Your task to perform on an android device: open app "eBay: The shopping marketplace" (install if not already installed) Image 0: 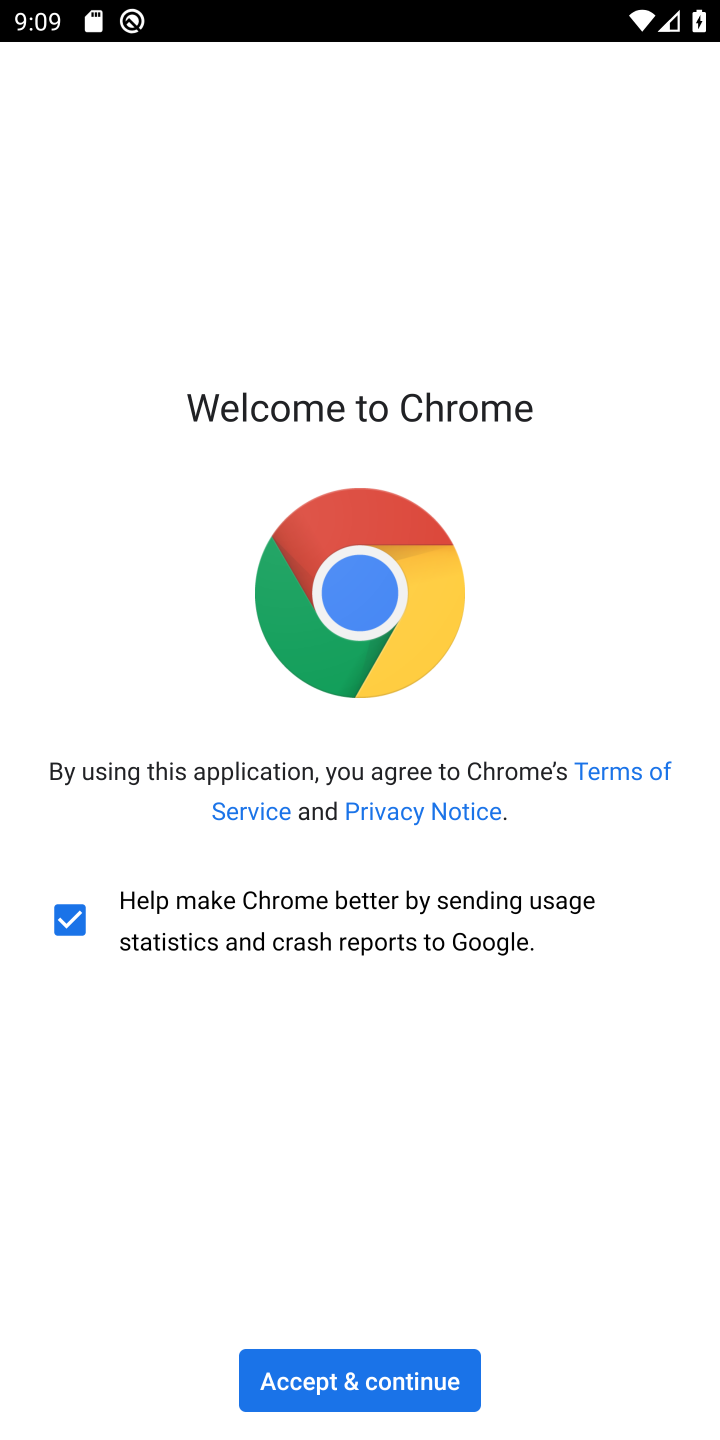
Step 0: press home button
Your task to perform on an android device: open app "eBay: The shopping marketplace" (install if not already installed) Image 1: 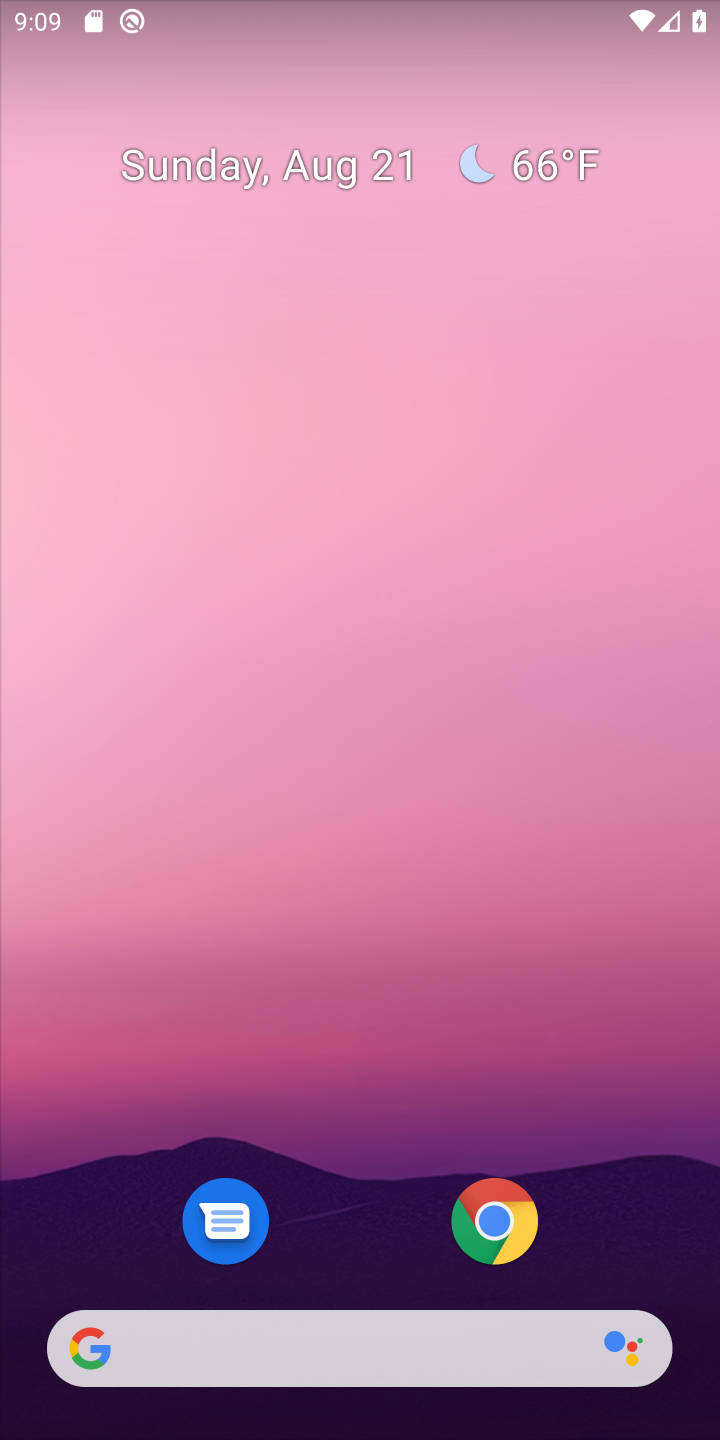
Step 1: drag from (330, 1119) to (262, 216)
Your task to perform on an android device: open app "eBay: The shopping marketplace" (install if not already installed) Image 2: 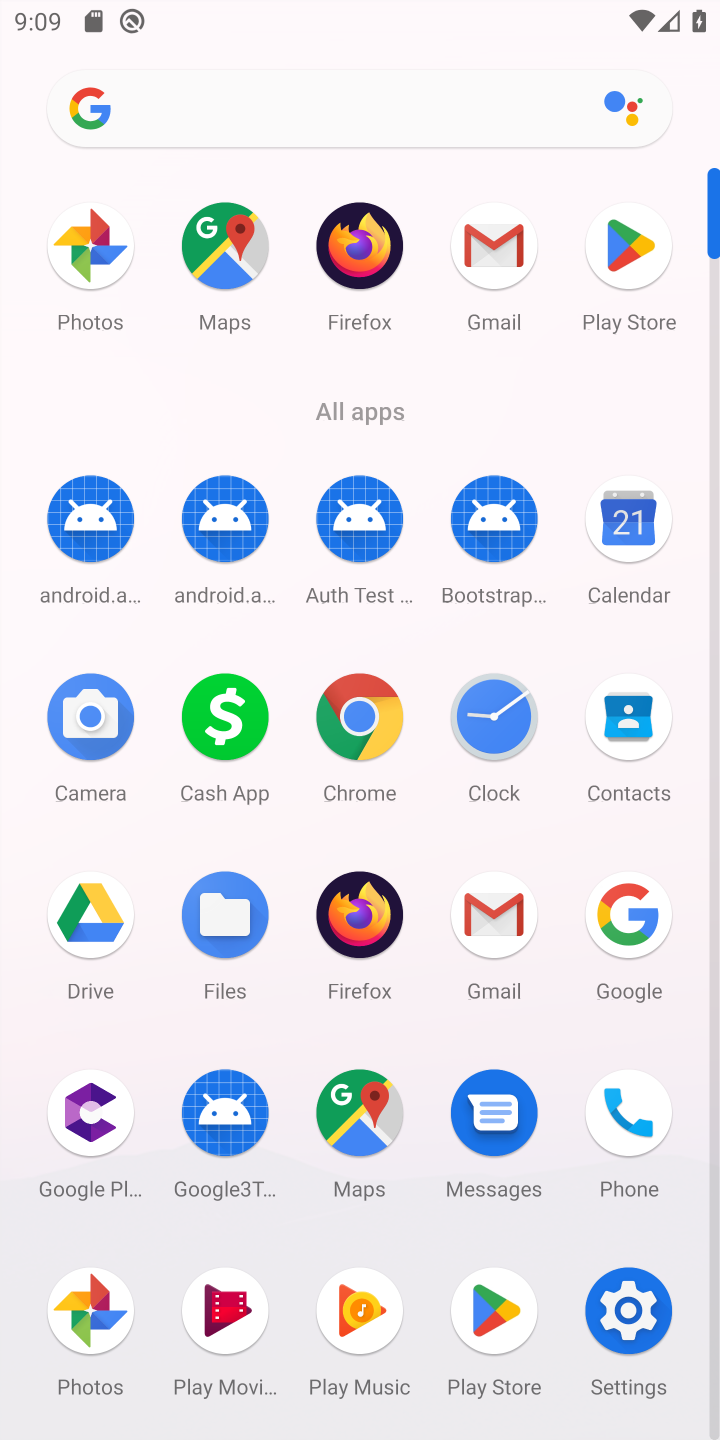
Step 2: click (625, 272)
Your task to perform on an android device: open app "eBay: The shopping marketplace" (install if not already installed) Image 3: 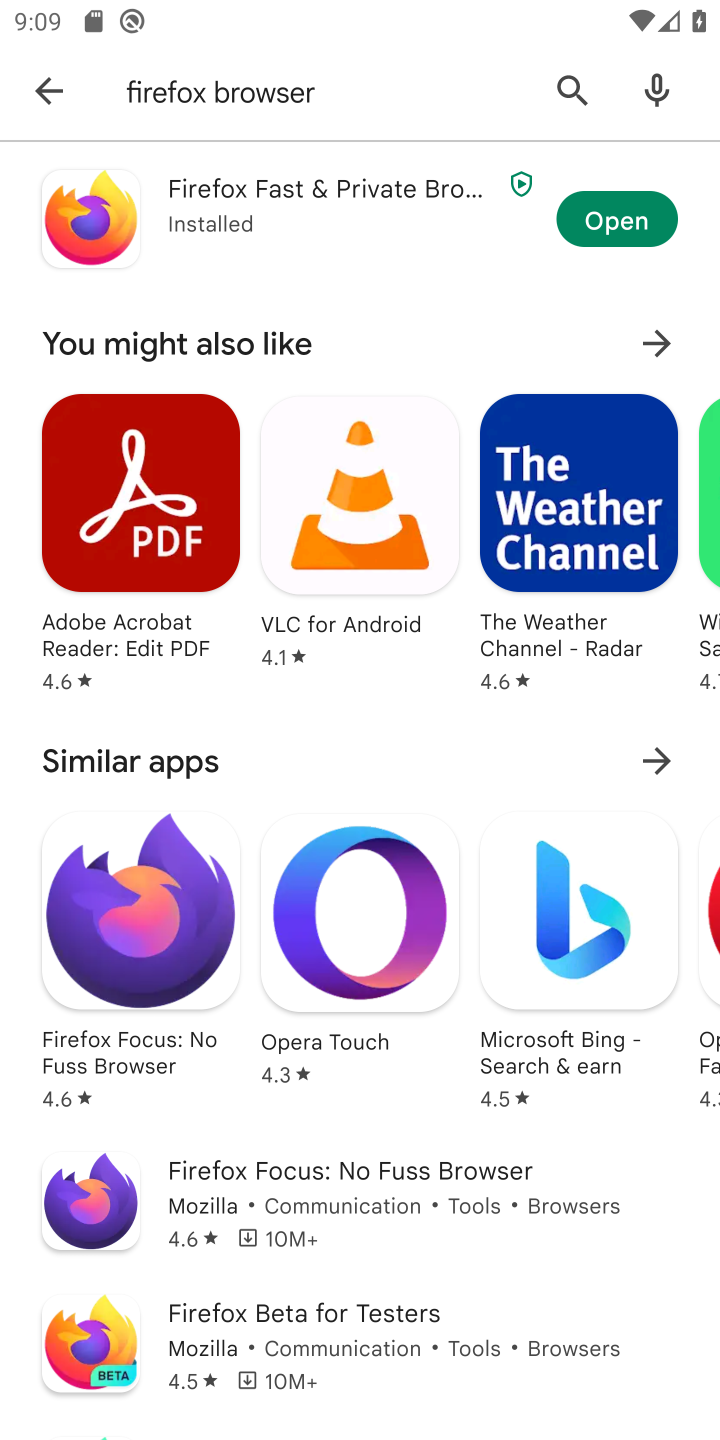
Step 3: click (573, 100)
Your task to perform on an android device: open app "eBay: The shopping marketplace" (install if not already installed) Image 4: 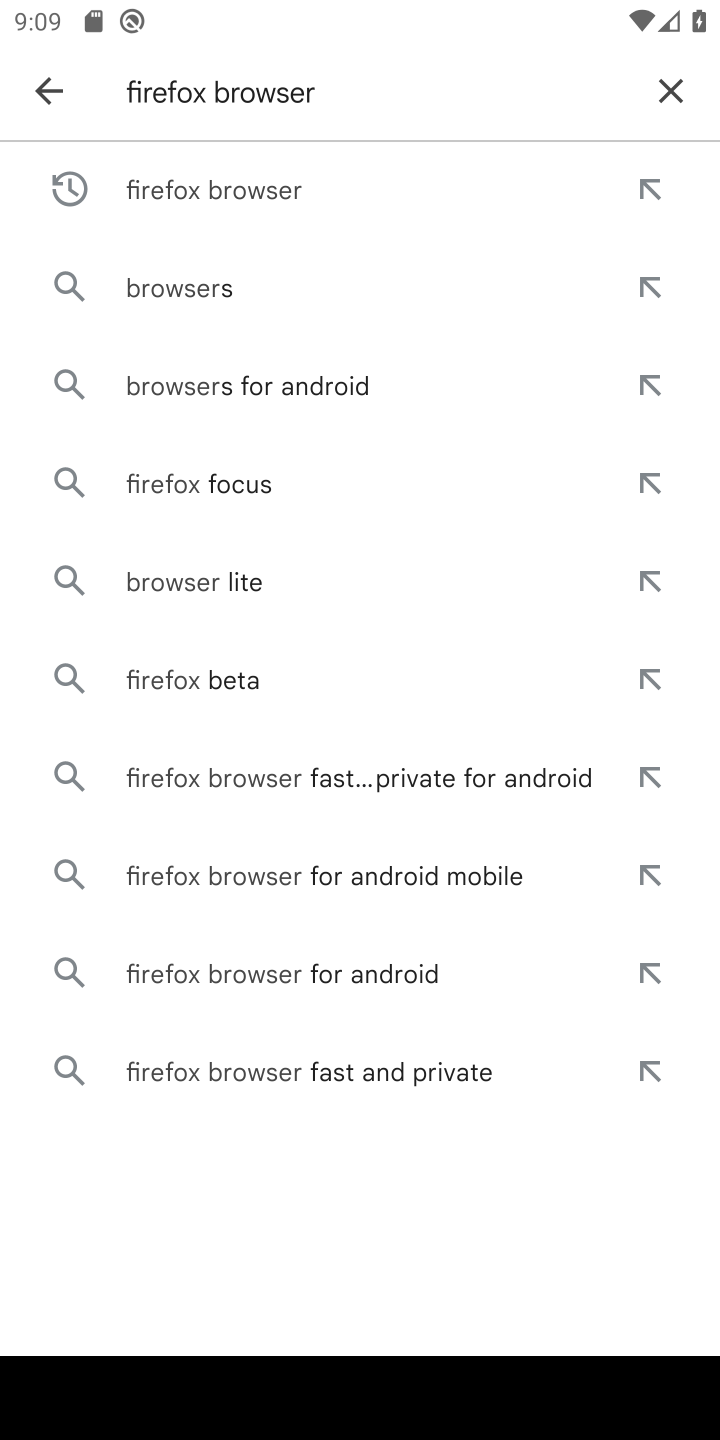
Step 4: click (674, 106)
Your task to perform on an android device: open app "eBay: The shopping marketplace" (install if not already installed) Image 5: 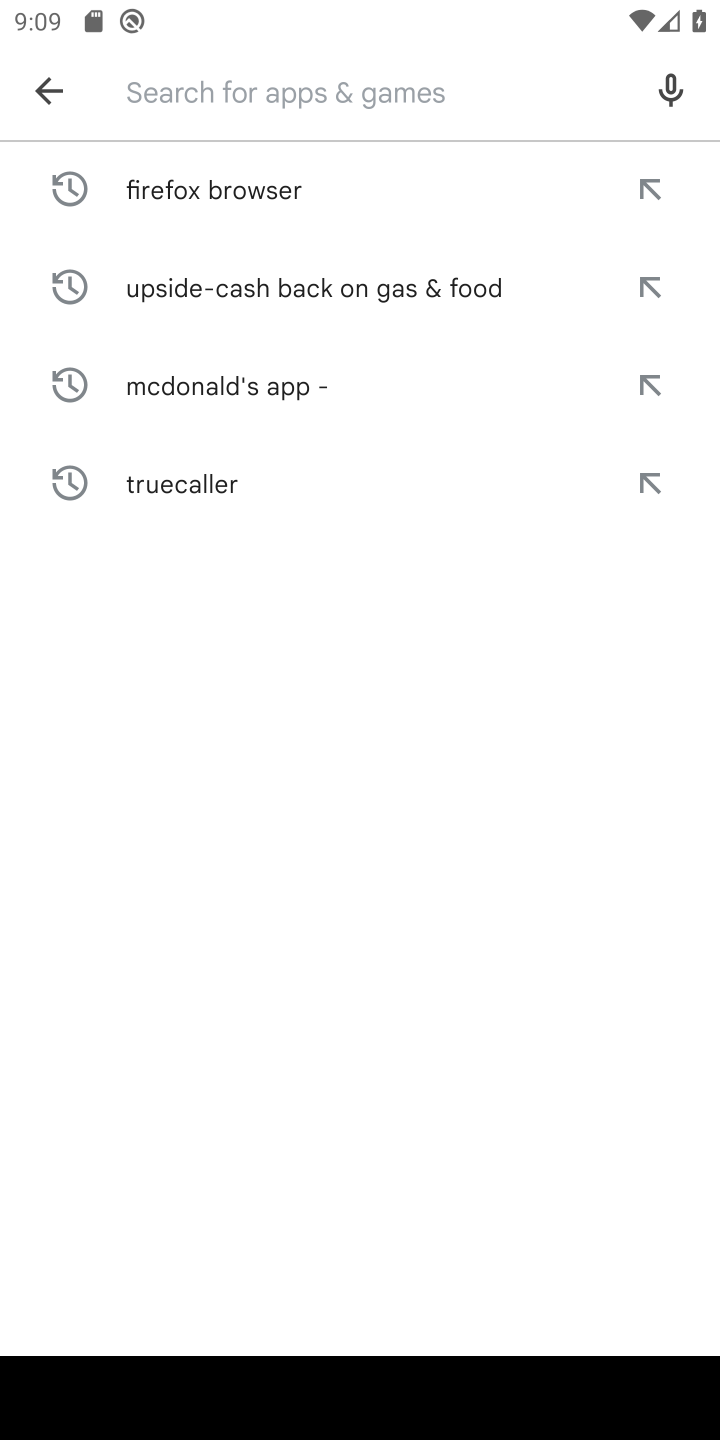
Step 5: type "eBay: The shopping marketplace"
Your task to perform on an android device: open app "eBay: The shopping marketplace" (install if not already installed) Image 6: 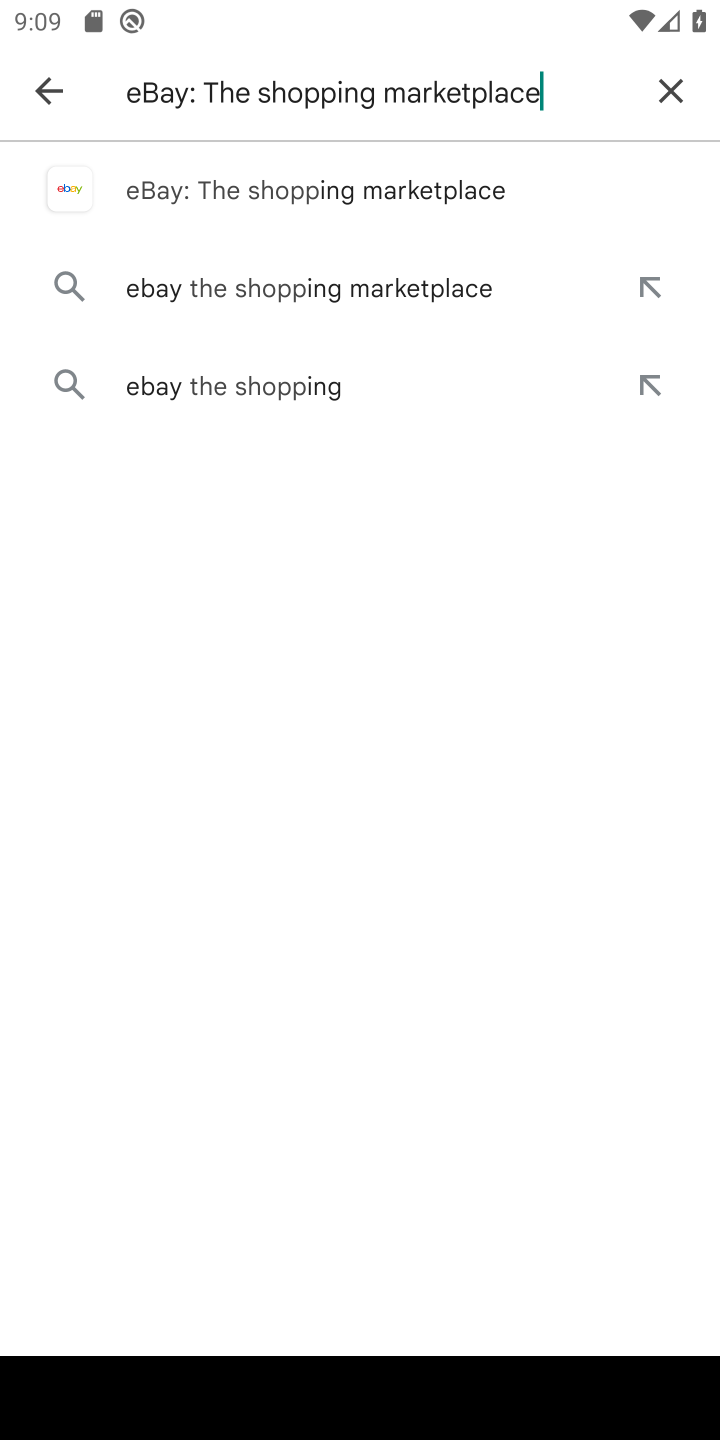
Step 6: type ""
Your task to perform on an android device: open app "eBay: The shopping marketplace" (install if not already installed) Image 7: 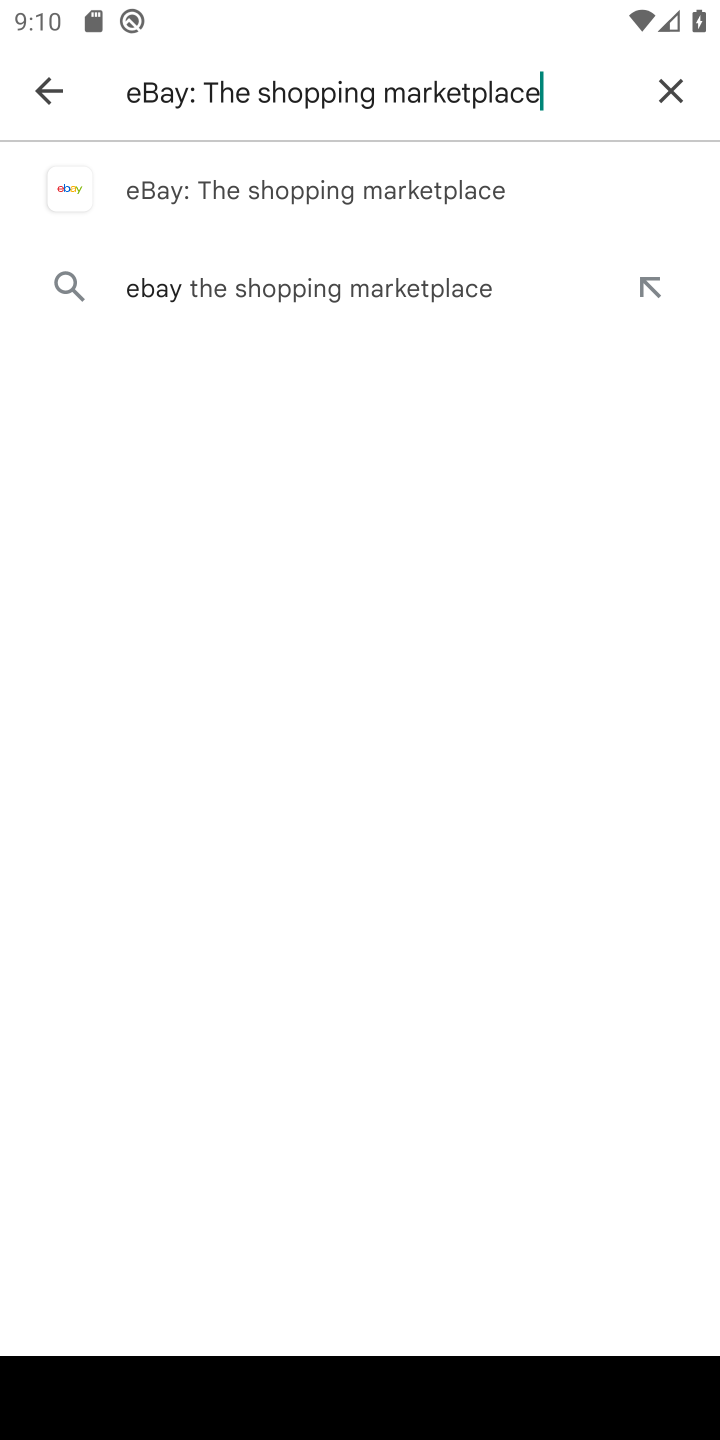
Step 7: click (181, 164)
Your task to perform on an android device: open app "eBay: The shopping marketplace" (install if not already installed) Image 8: 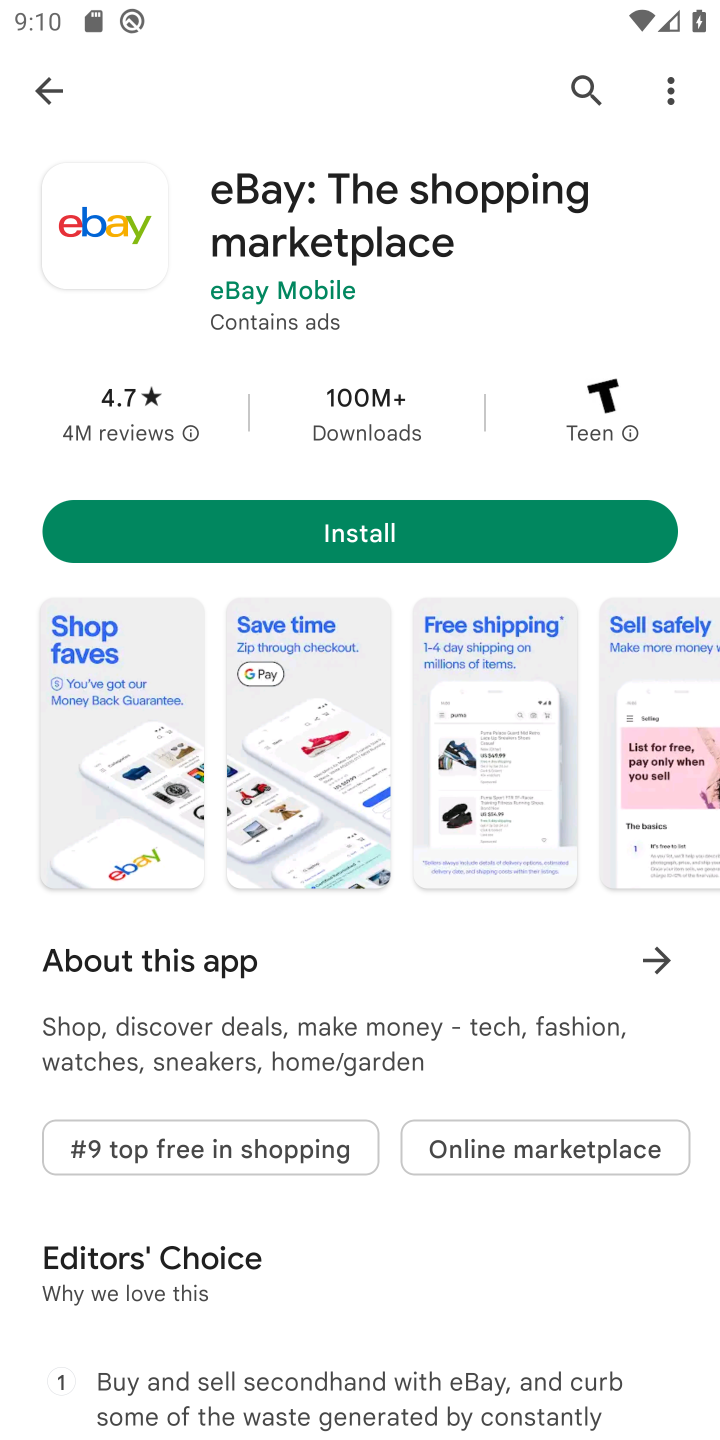
Step 8: click (407, 555)
Your task to perform on an android device: open app "eBay: The shopping marketplace" (install if not already installed) Image 9: 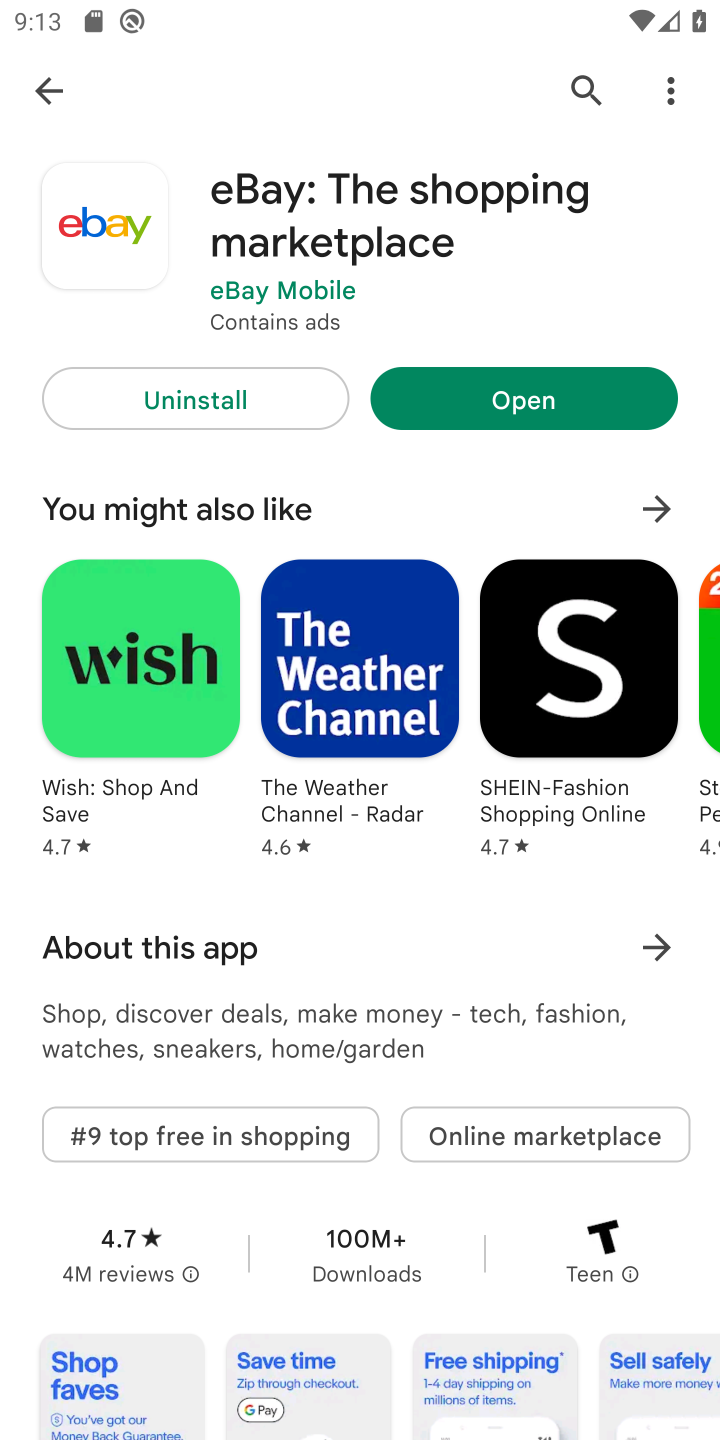
Step 9: click (406, 387)
Your task to perform on an android device: open app "eBay: The shopping marketplace" (install if not already installed) Image 10: 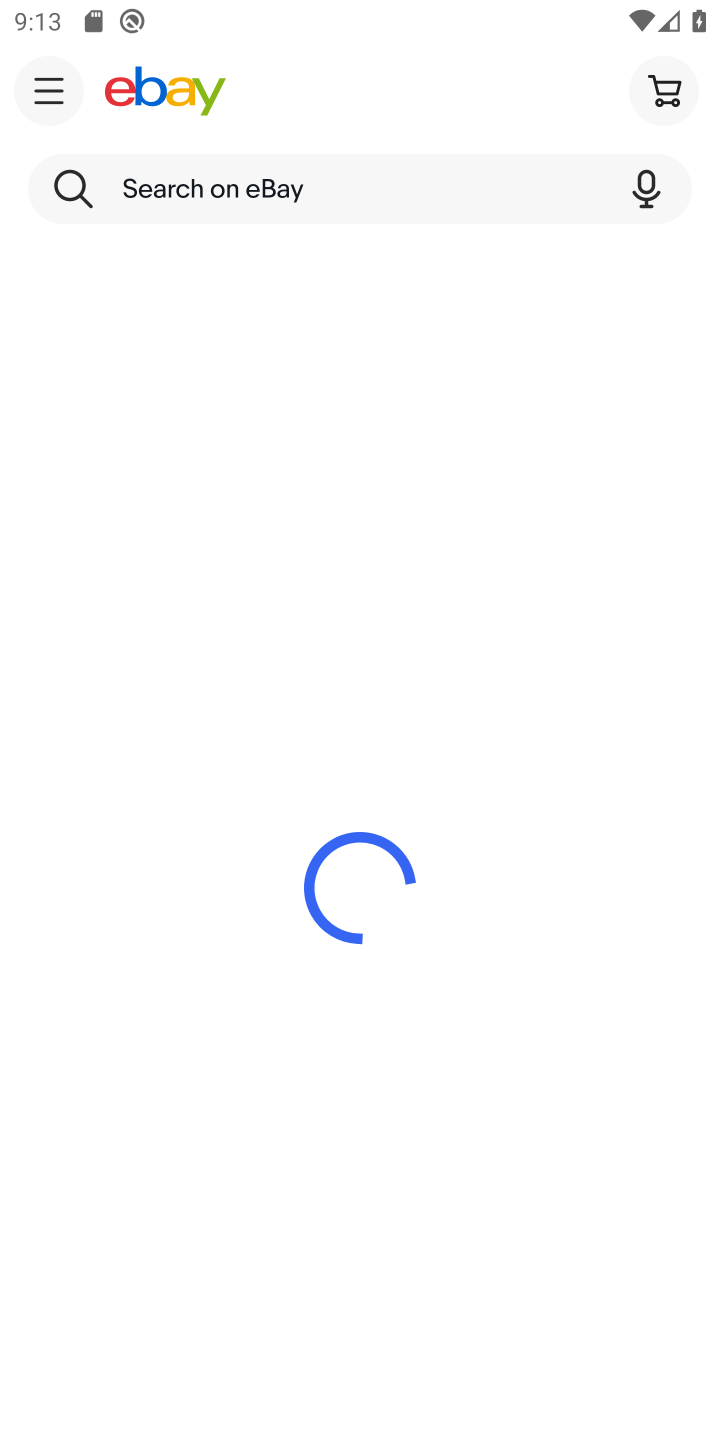
Step 10: task complete